Your task to perform on an android device: uninstall "Skype" Image 0: 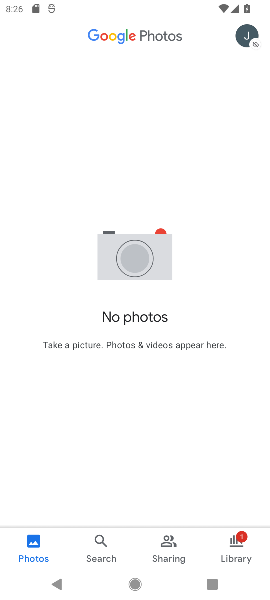
Step 0: press home button
Your task to perform on an android device: uninstall "Skype" Image 1: 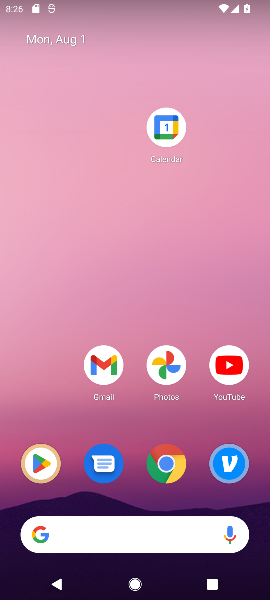
Step 1: drag from (135, 513) to (171, 55)
Your task to perform on an android device: uninstall "Skype" Image 2: 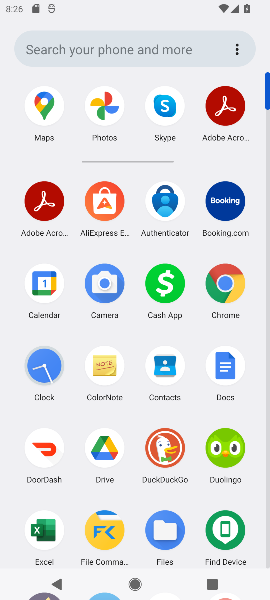
Step 2: click (164, 113)
Your task to perform on an android device: uninstall "Skype" Image 3: 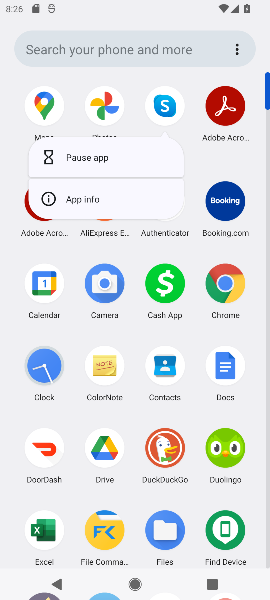
Step 3: click (100, 194)
Your task to perform on an android device: uninstall "Skype" Image 4: 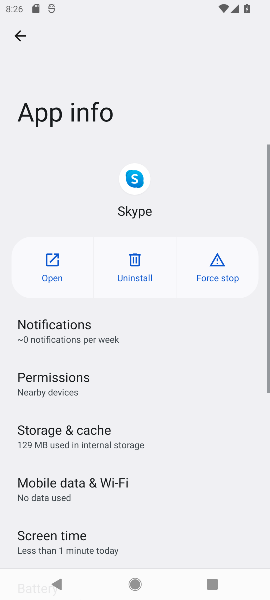
Step 4: click (143, 263)
Your task to perform on an android device: uninstall "Skype" Image 5: 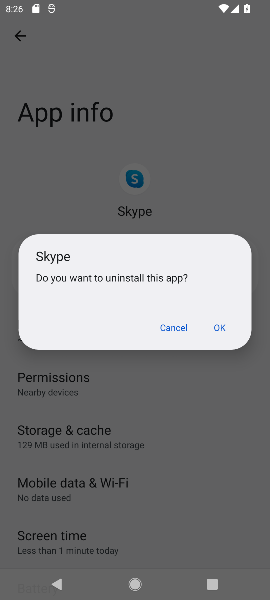
Step 5: click (219, 332)
Your task to perform on an android device: uninstall "Skype" Image 6: 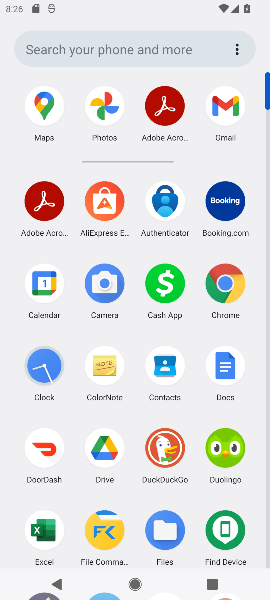
Step 6: task complete